Your task to perform on an android device: turn off location Image 0: 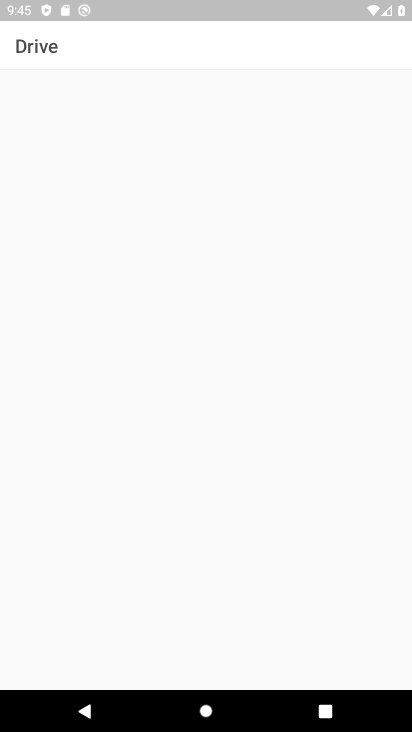
Step 0: press home button
Your task to perform on an android device: turn off location Image 1: 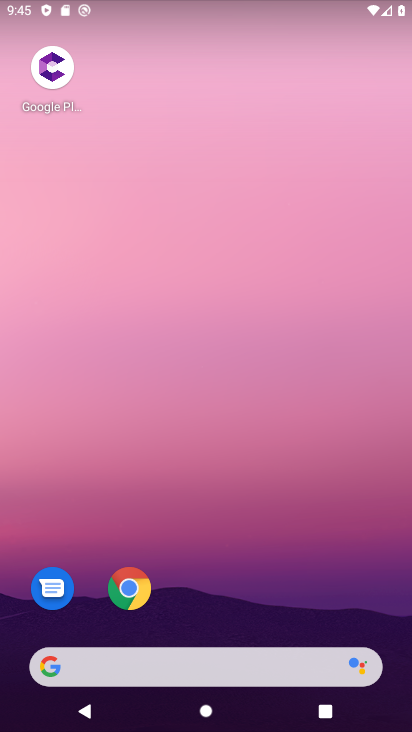
Step 1: drag from (242, 611) to (239, 89)
Your task to perform on an android device: turn off location Image 2: 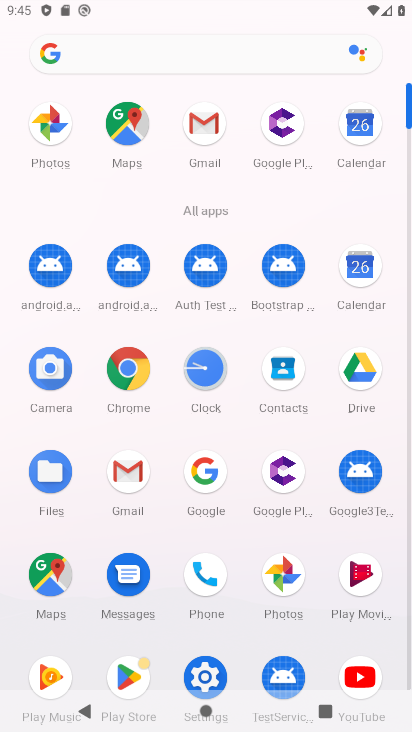
Step 2: click (203, 682)
Your task to perform on an android device: turn off location Image 3: 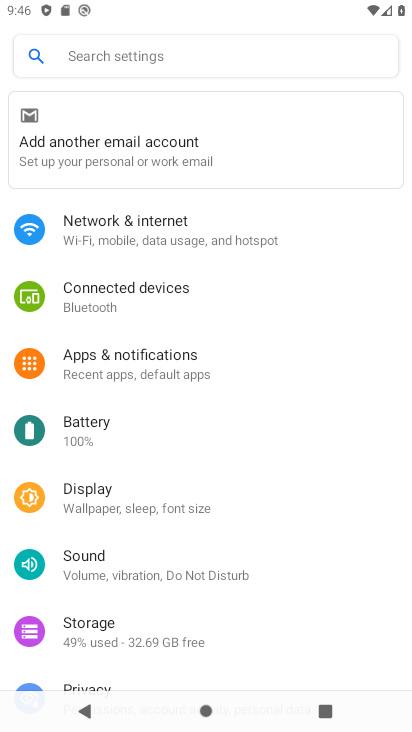
Step 3: drag from (224, 635) to (200, 328)
Your task to perform on an android device: turn off location Image 4: 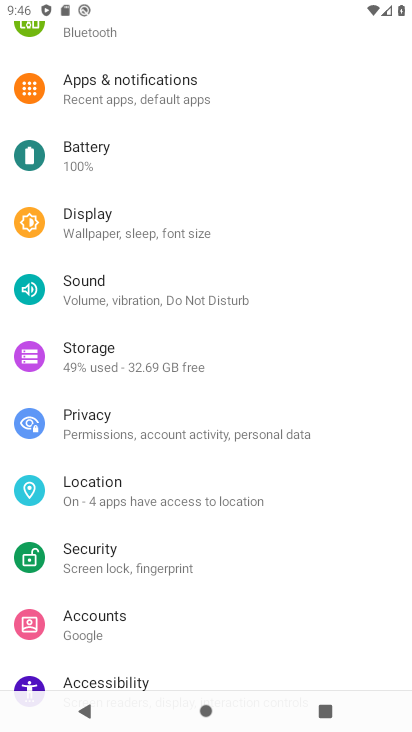
Step 4: click (191, 490)
Your task to perform on an android device: turn off location Image 5: 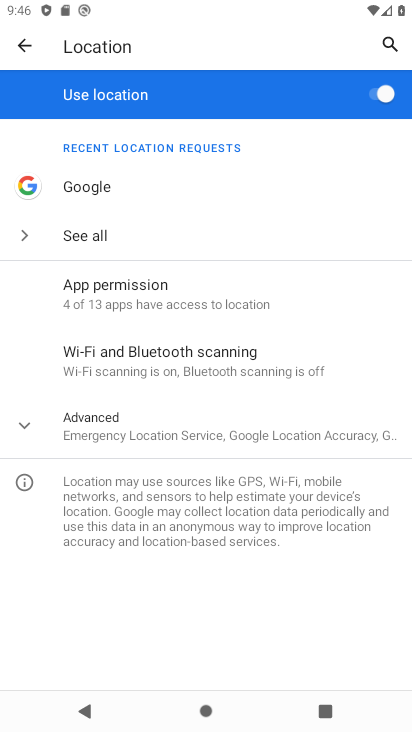
Step 5: click (369, 95)
Your task to perform on an android device: turn off location Image 6: 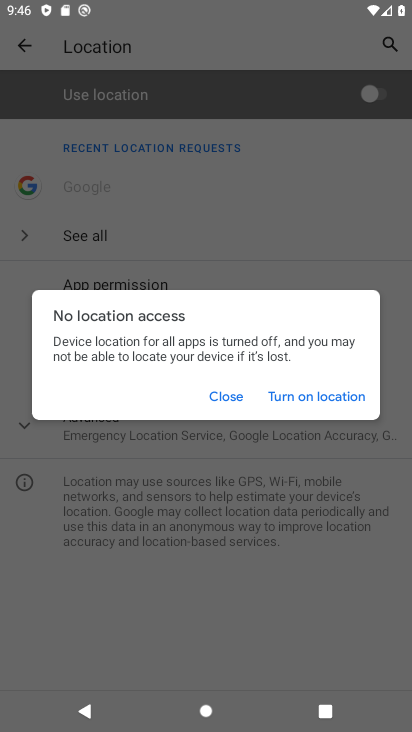
Step 6: task complete